Your task to perform on an android device: check out phone information Image 0: 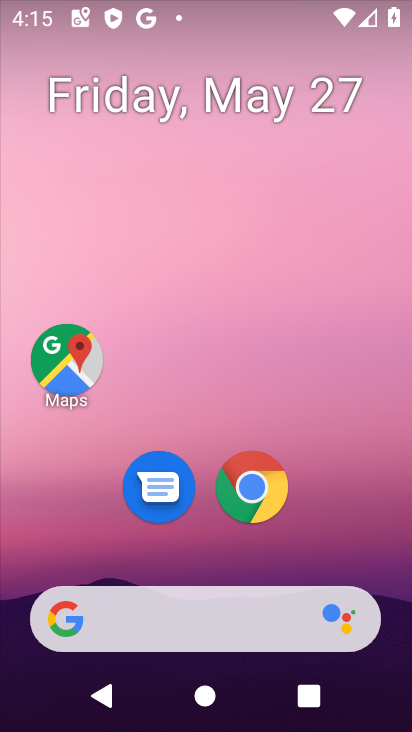
Step 0: drag from (320, 538) to (268, 57)
Your task to perform on an android device: check out phone information Image 1: 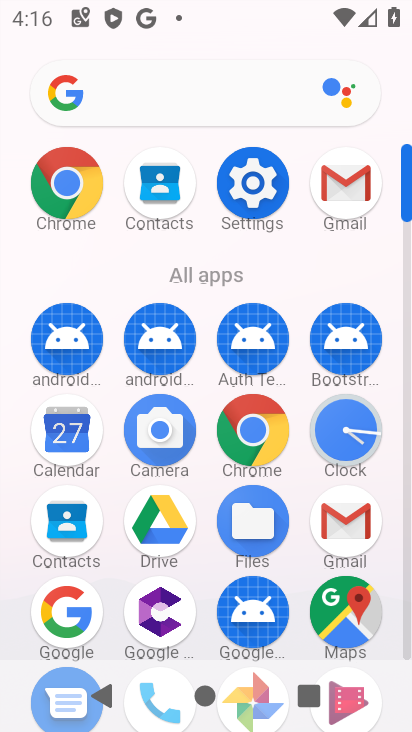
Step 1: drag from (207, 575) to (230, 133)
Your task to perform on an android device: check out phone information Image 2: 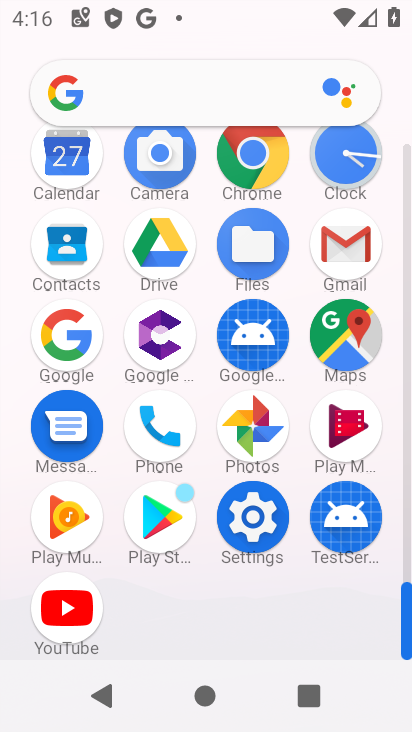
Step 2: click (172, 417)
Your task to perform on an android device: check out phone information Image 3: 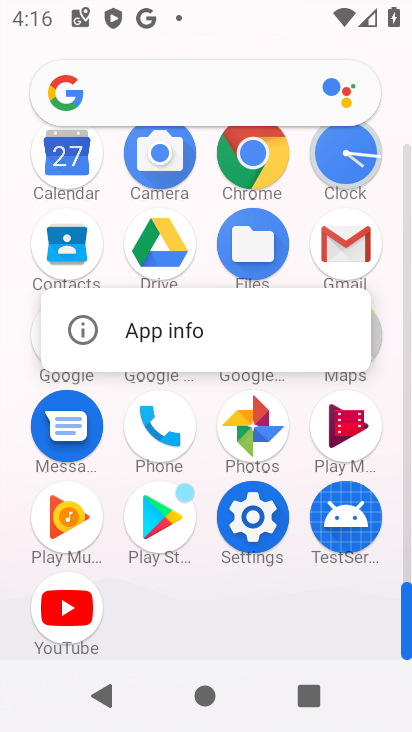
Step 3: click (117, 328)
Your task to perform on an android device: check out phone information Image 4: 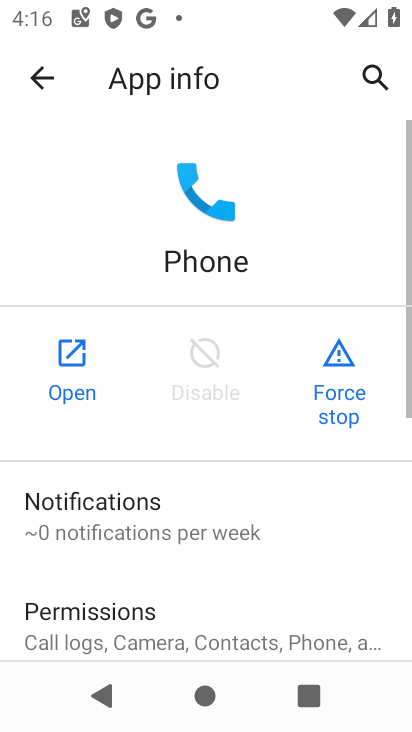
Step 4: task complete